Your task to perform on an android device: Open calendar and show me the second week of next month Image 0: 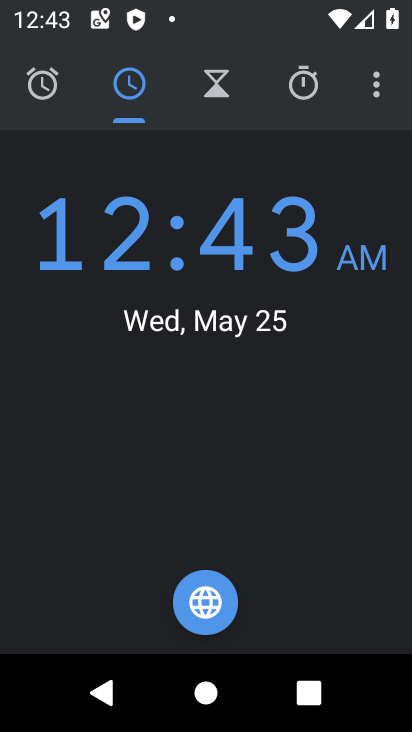
Step 0: press home button
Your task to perform on an android device: Open calendar and show me the second week of next month Image 1: 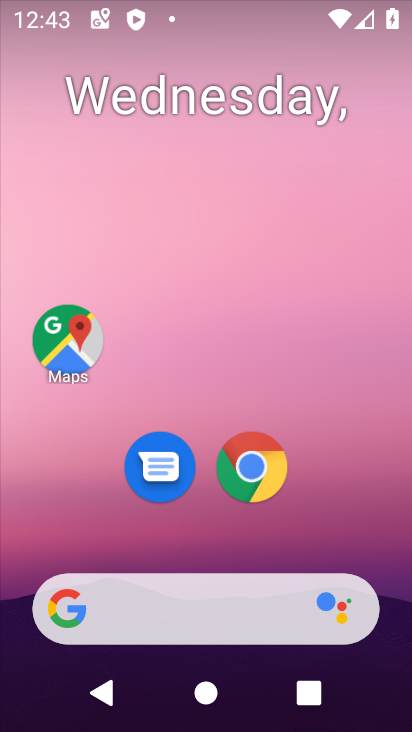
Step 1: drag from (292, 510) to (295, 269)
Your task to perform on an android device: Open calendar and show me the second week of next month Image 2: 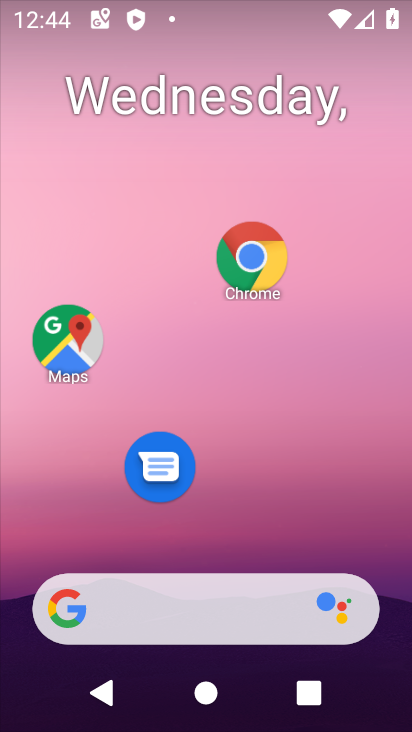
Step 2: drag from (313, 528) to (288, 254)
Your task to perform on an android device: Open calendar and show me the second week of next month Image 3: 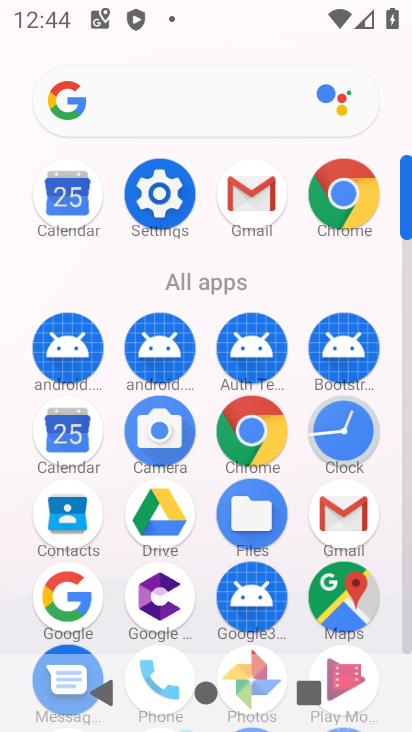
Step 3: click (44, 437)
Your task to perform on an android device: Open calendar and show me the second week of next month Image 4: 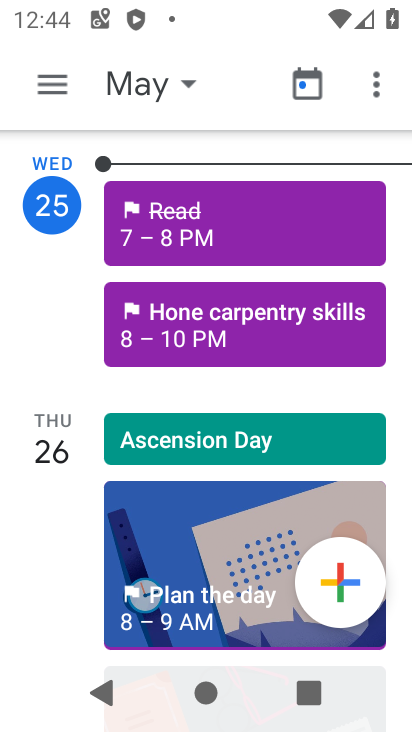
Step 4: click (192, 85)
Your task to perform on an android device: Open calendar and show me the second week of next month Image 5: 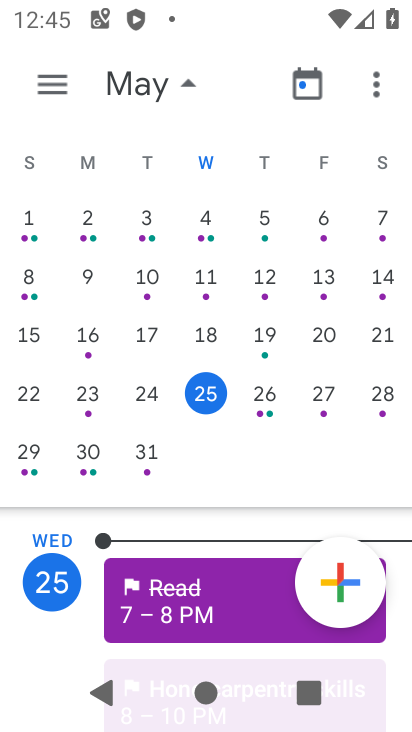
Step 5: drag from (403, 307) to (58, 342)
Your task to perform on an android device: Open calendar and show me the second week of next month Image 6: 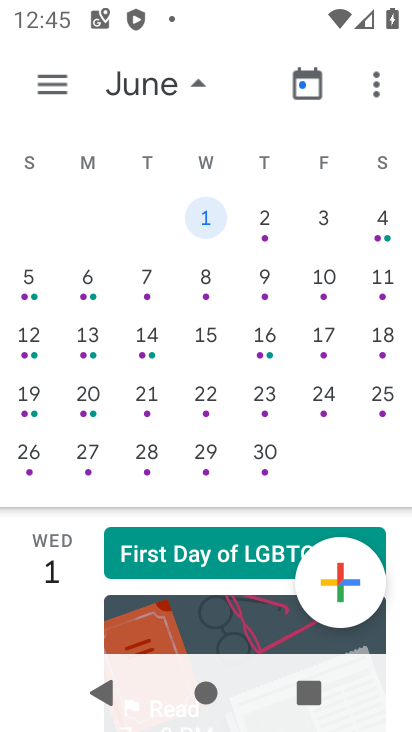
Step 6: click (205, 288)
Your task to perform on an android device: Open calendar and show me the second week of next month Image 7: 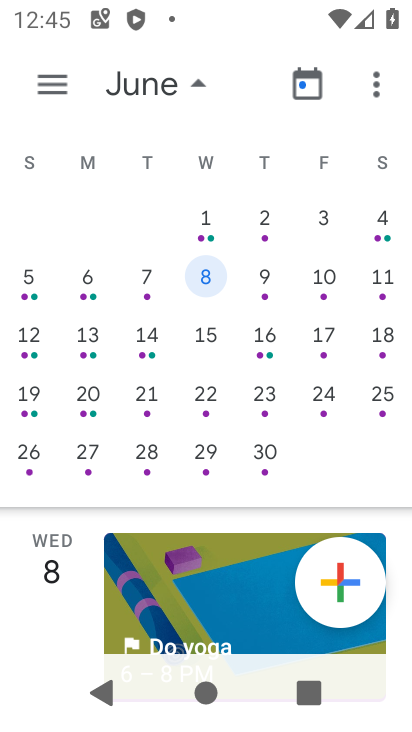
Step 7: task complete